Your task to perform on an android device: Open sound settings Image 0: 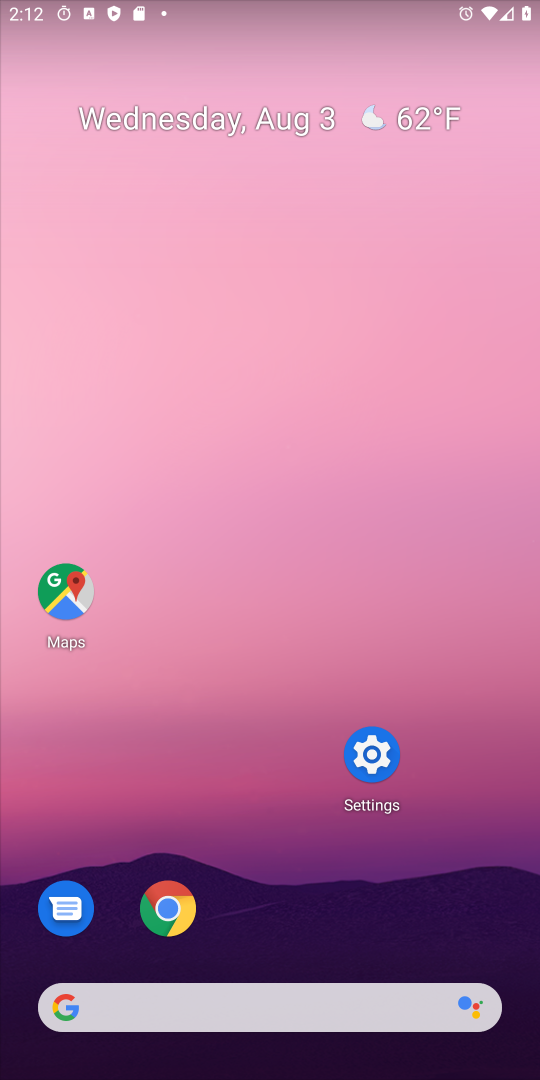
Step 0: drag from (158, 488) to (284, 187)
Your task to perform on an android device: Open sound settings Image 1: 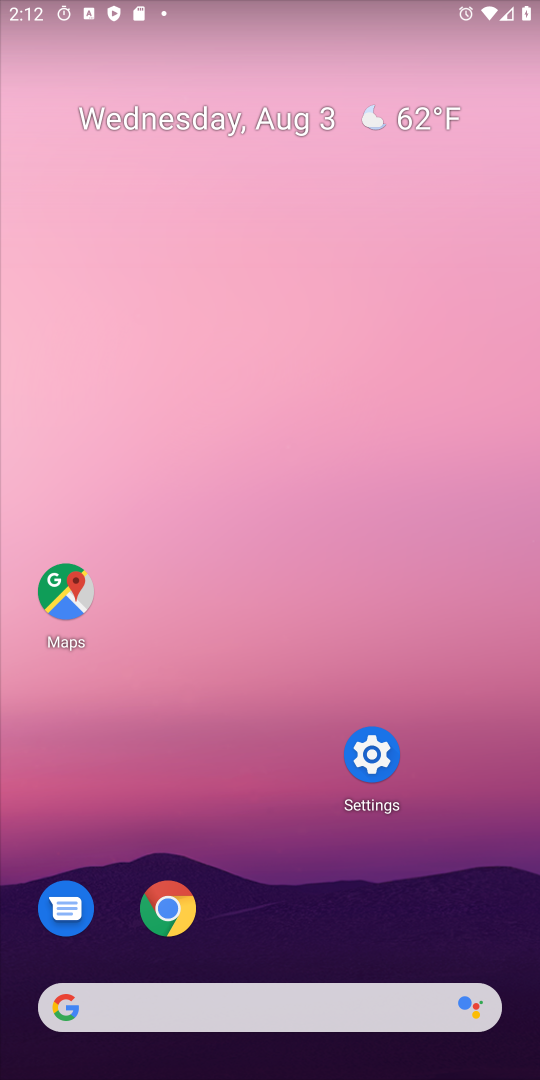
Step 1: click (344, 764)
Your task to perform on an android device: Open sound settings Image 2: 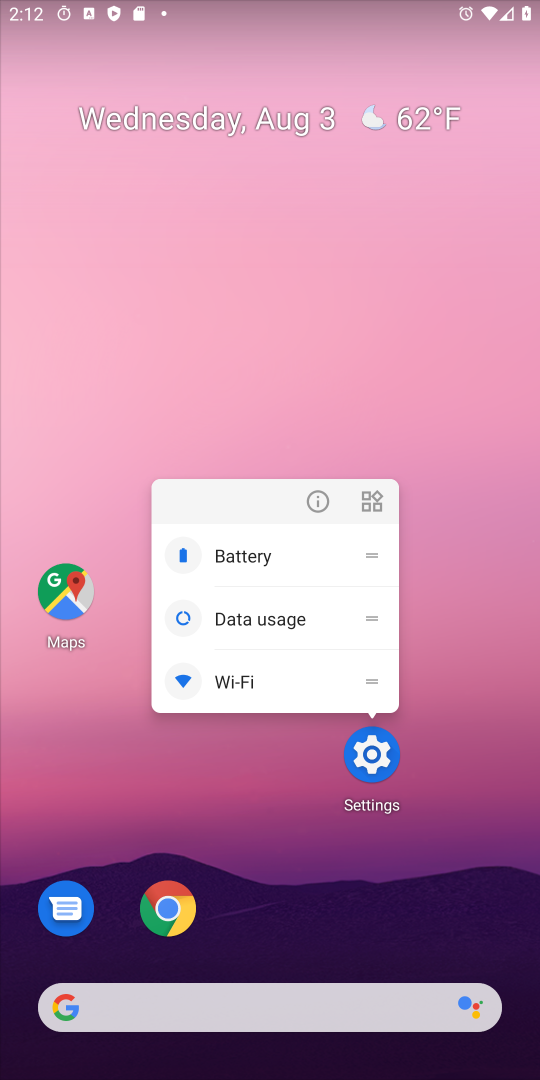
Step 2: click (357, 751)
Your task to perform on an android device: Open sound settings Image 3: 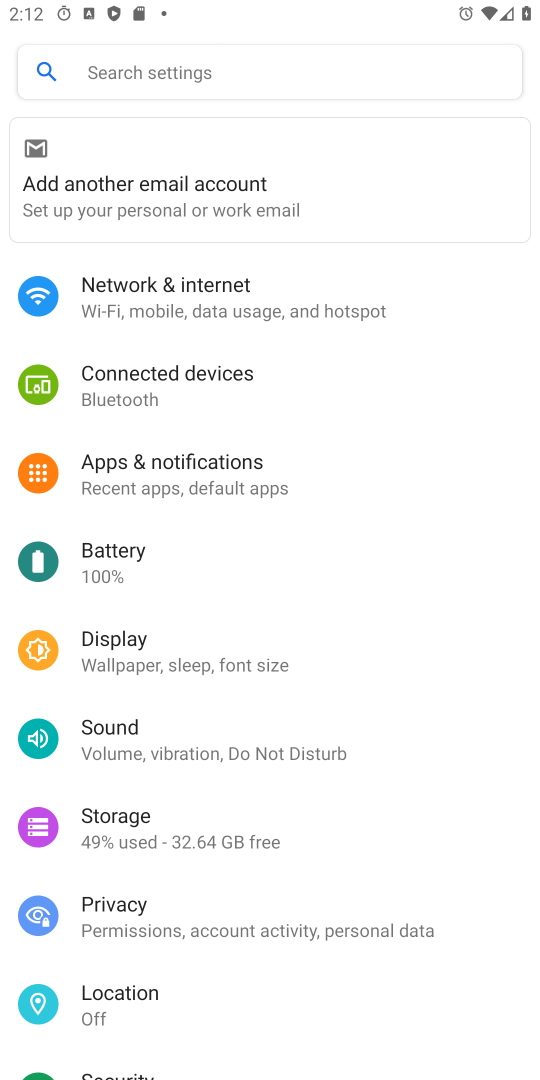
Step 3: click (136, 733)
Your task to perform on an android device: Open sound settings Image 4: 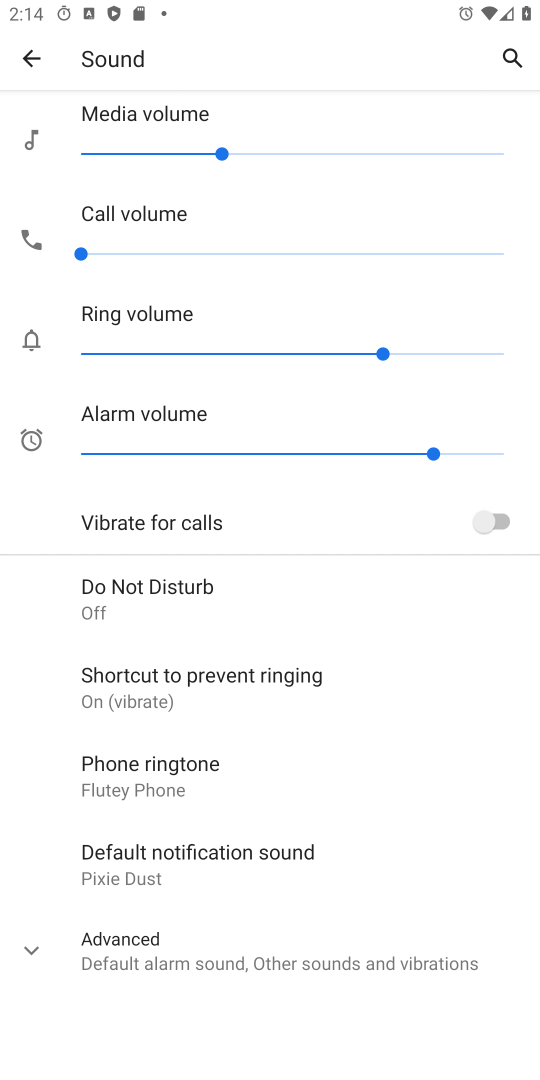
Step 4: task complete